Your task to perform on an android device: Go to privacy settings Image 0: 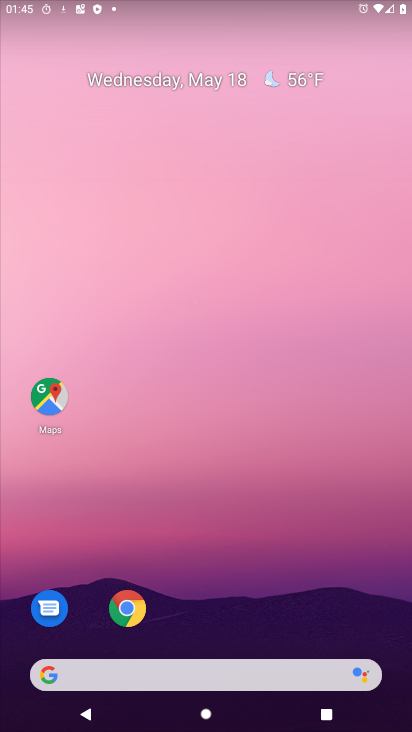
Step 0: drag from (267, 690) to (232, 350)
Your task to perform on an android device: Go to privacy settings Image 1: 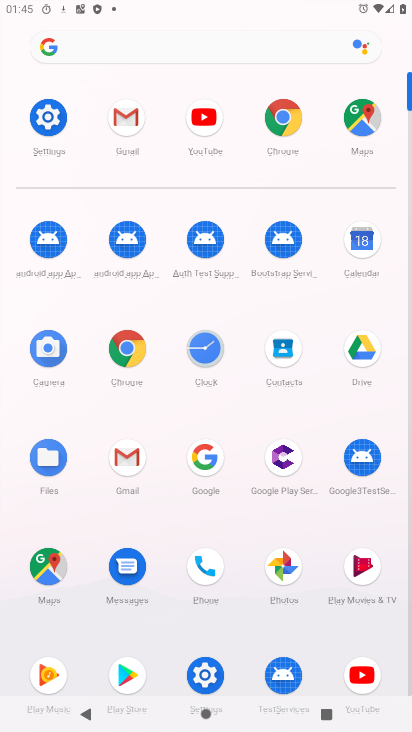
Step 1: click (57, 148)
Your task to perform on an android device: Go to privacy settings Image 2: 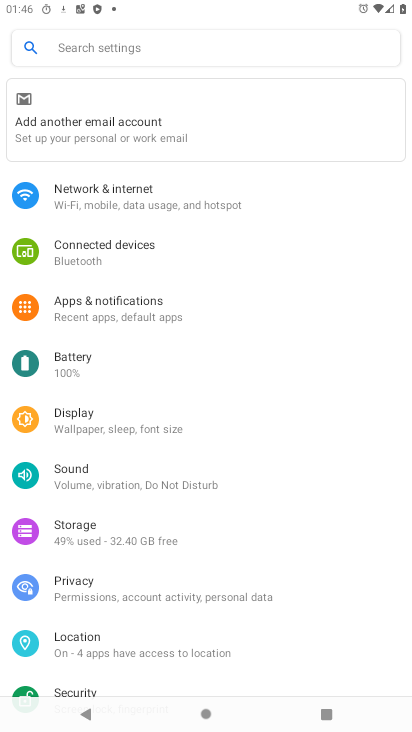
Step 2: click (103, 588)
Your task to perform on an android device: Go to privacy settings Image 3: 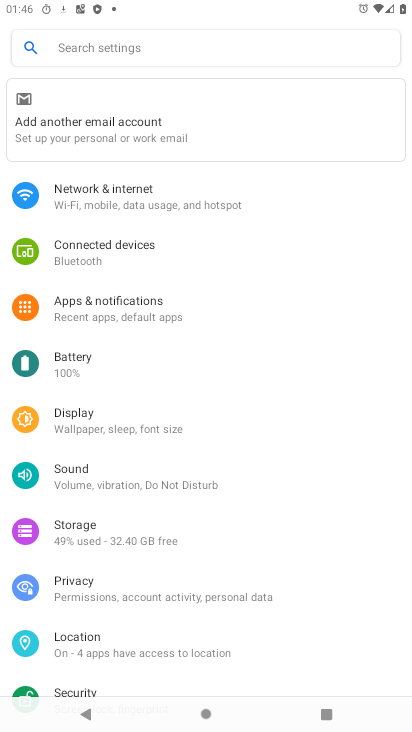
Step 3: click (79, 584)
Your task to perform on an android device: Go to privacy settings Image 4: 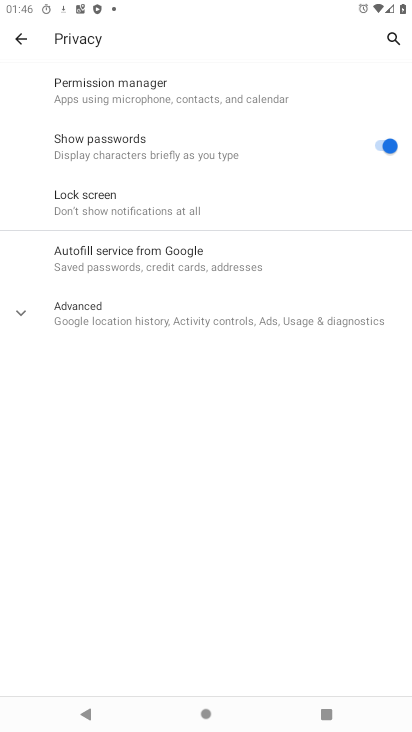
Step 4: task complete